Your task to perform on an android device: turn notification dots on Image 0: 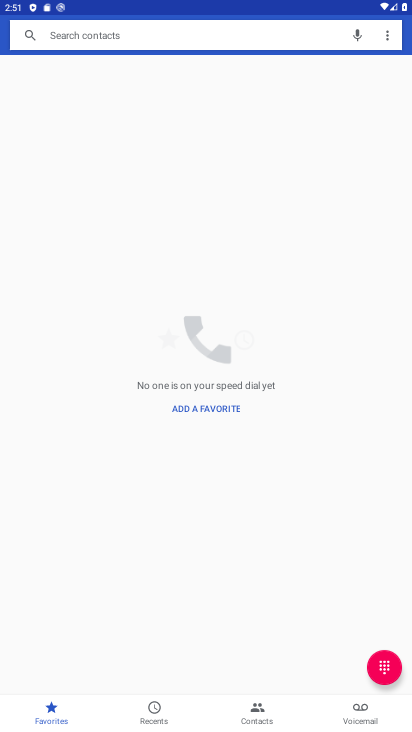
Step 0: press home button
Your task to perform on an android device: turn notification dots on Image 1: 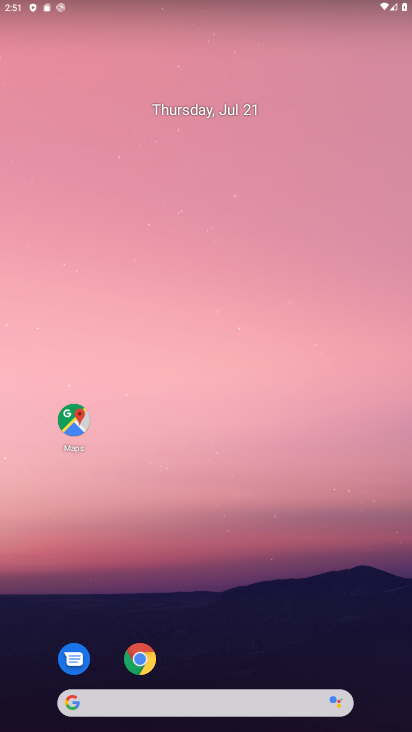
Step 1: click (411, 286)
Your task to perform on an android device: turn notification dots on Image 2: 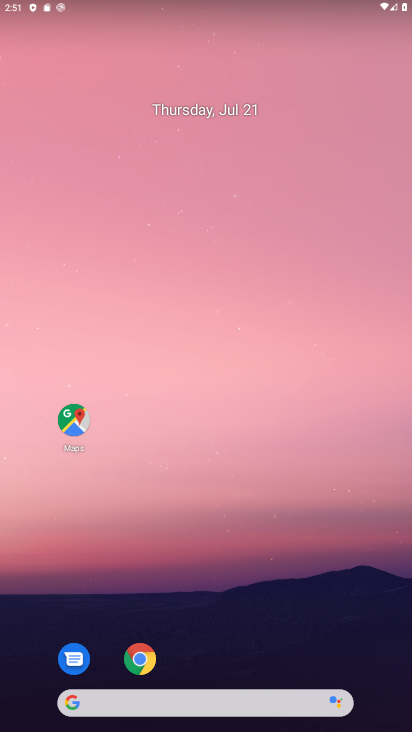
Step 2: drag from (289, 544) to (275, 107)
Your task to perform on an android device: turn notification dots on Image 3: 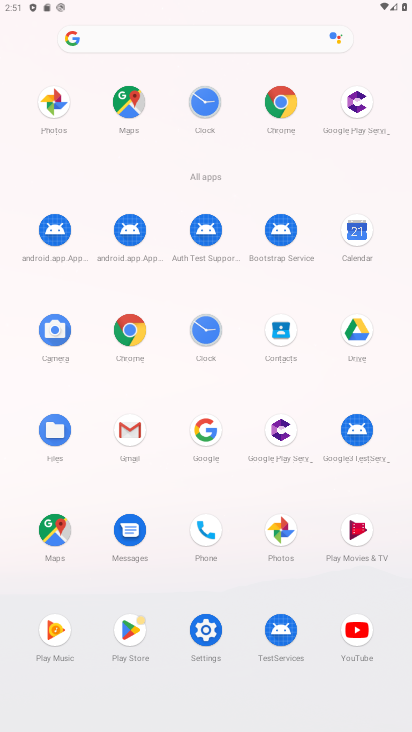
Step 3: click (205, 625)
Your task to perform on an android device: turn notification dots on Image 4: 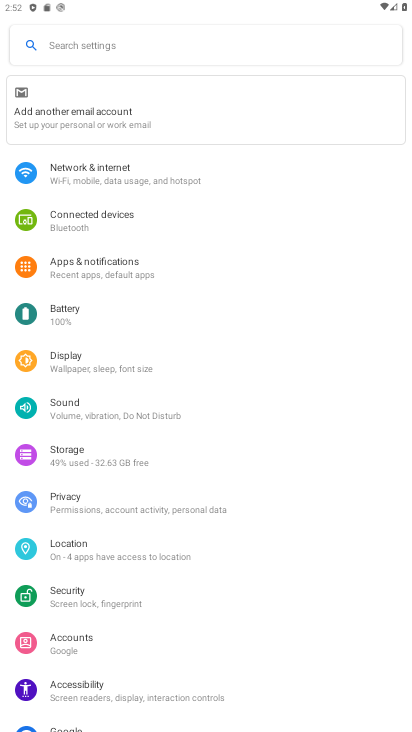
Step 4: click (121, 263)
Your task to perform on an android device: turn notification dots on Image 5: 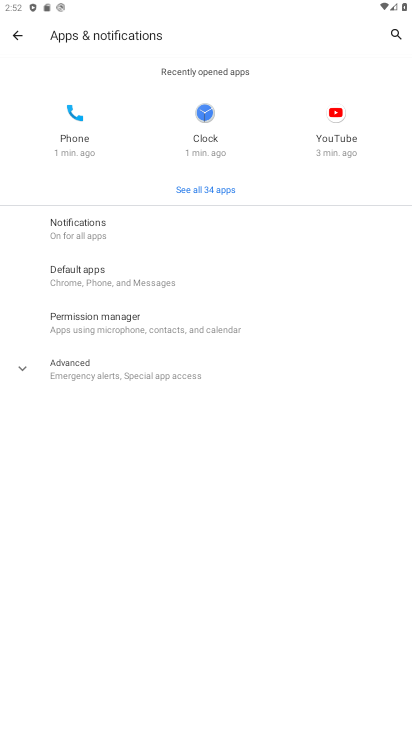
Step 5: click (173, 215)
Your task to perform on an android device: turn notification dots on Image 6: 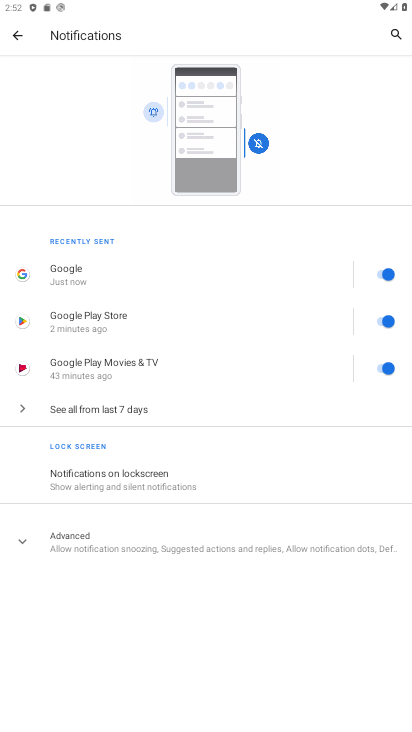
Step 6: click (138, 535)
Your task to perform on an android device: turn notification dots on Image 7: 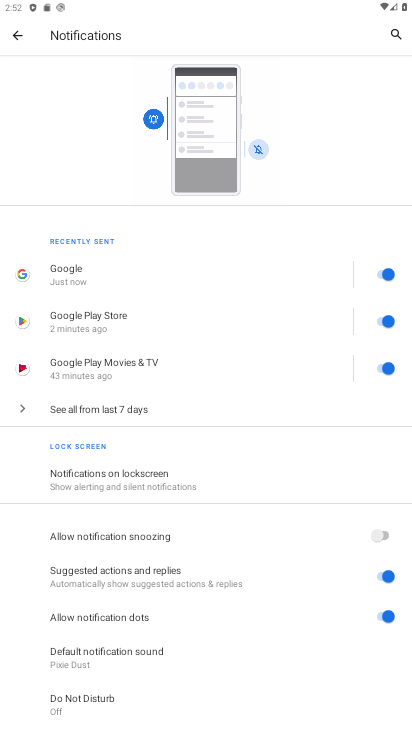
Step 7: task complete